Your task to perform on an android device: Open the calendar and show me this week's events? Image 0: 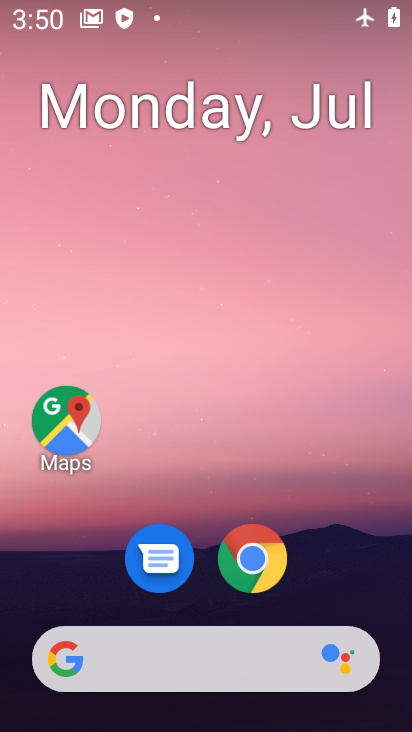
Step 0: drag from (69, 565) to (207, 0)
Your task to perform on an android device: Open the calendar and show me this week's events? Image 1: 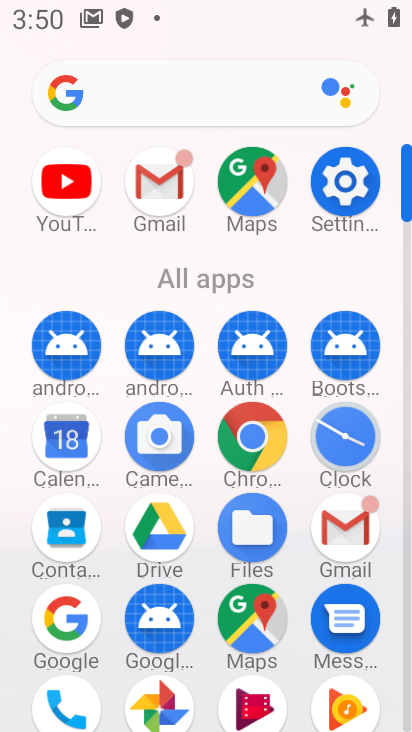
Step 1: click (58, 447)
Your task to perform on an android device: Open the calendar and show me this week's events? Image 2: 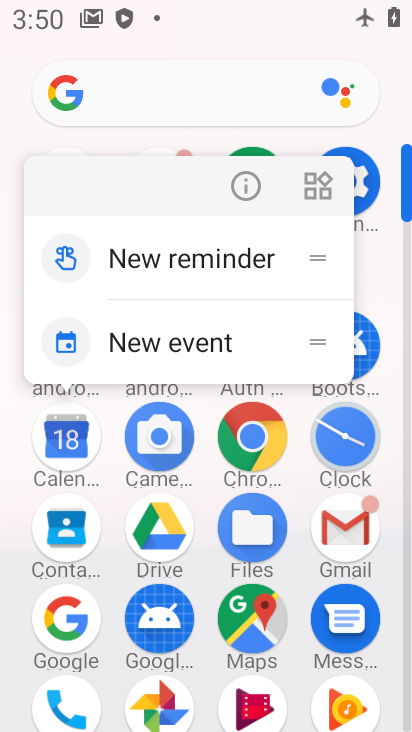
Step 2: click (52, 445)
Your task to perform on an android device: Open the calendar and show me this week's events? Image 3: 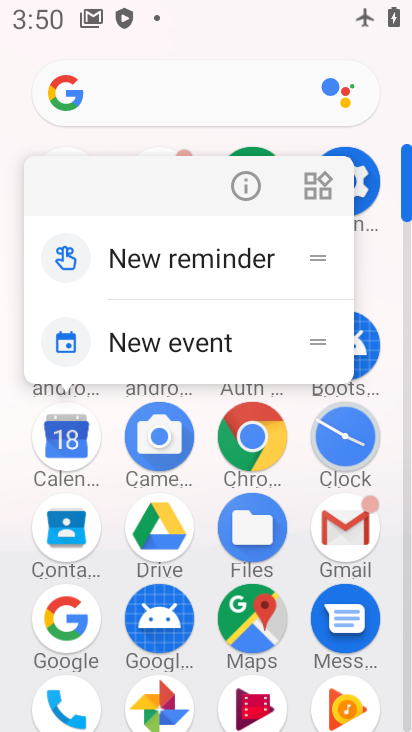
Step 3: click (69, 435)
Your task to perform on an android device: Open the calendar and show me this week's events? Image 4: 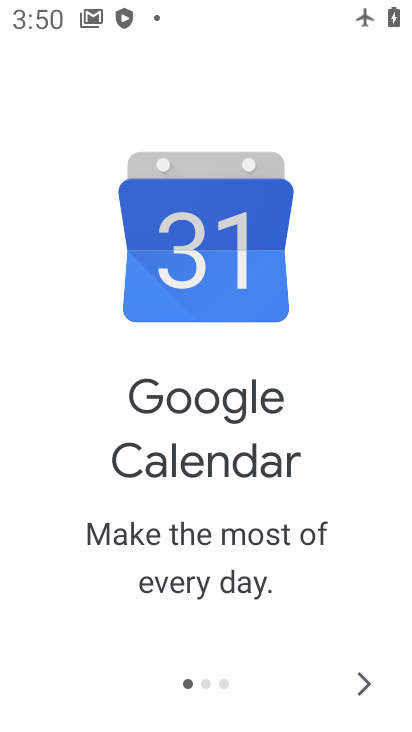
Step 4: click (347, 677)
Your task to perform on an android device: Open the calendar and show me this week's events? Image 5: 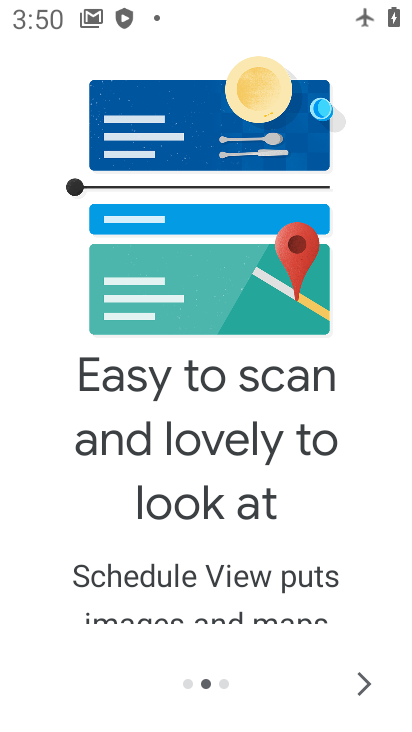
Step 5: click (346, 674)
Your task to perform on an android device: Open the calendar and show me this week's events? Image 6: 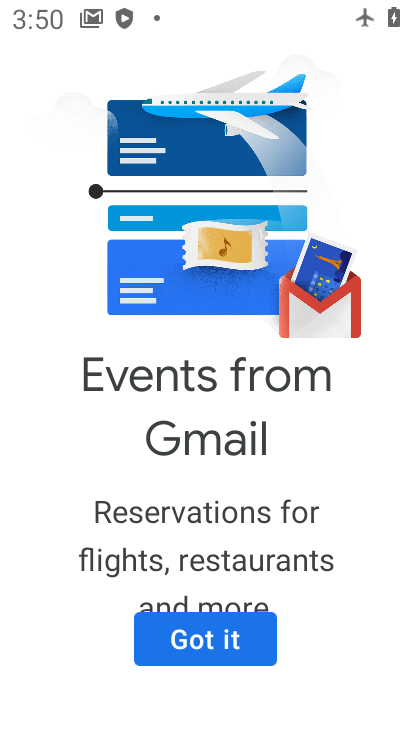
Step 6: click (187, 639)
Your task to perform on an android device: Open the calendar and show me this week's events? Image 7: 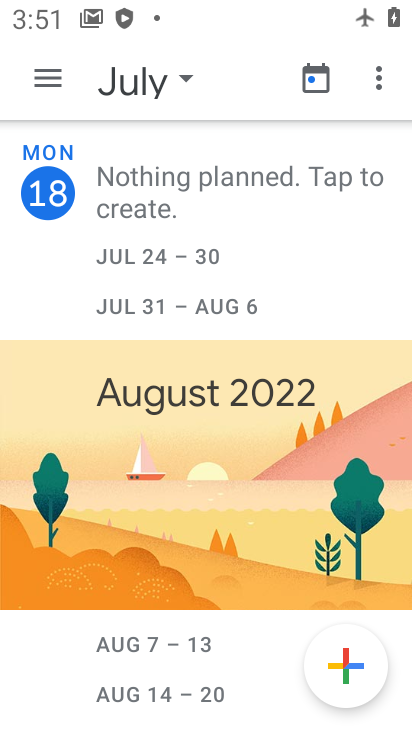
Step 7: click (183, 78)
Your task to perform on an android device: Open the calendar and show me this week's events? Image 8: 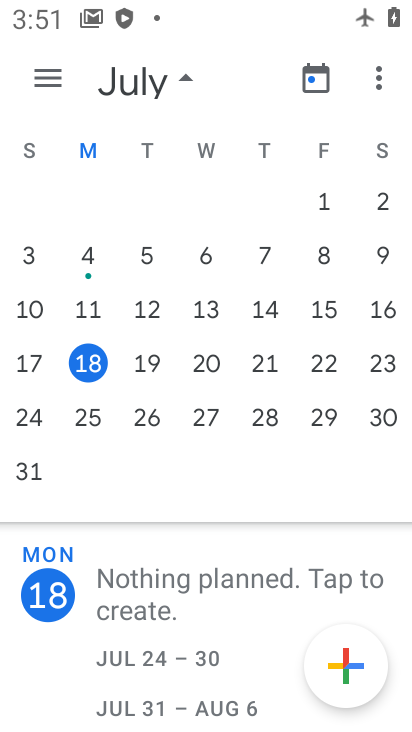
Step 8: click (87, 368)
Your task to perform on an android device: Open the calendar and show me this week's events? Image 9: 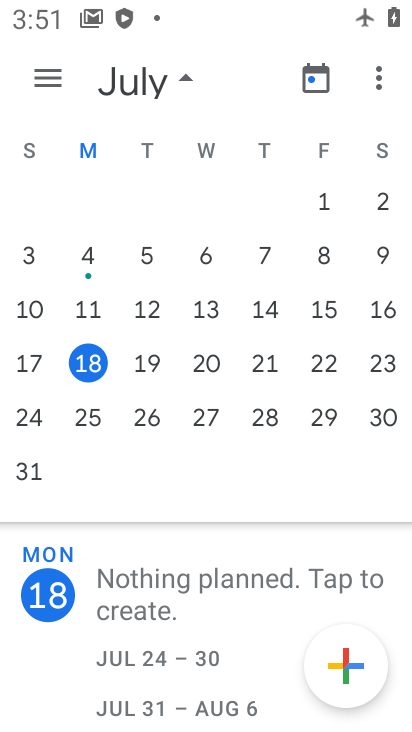
Step 9: task complete